Your task to perform on an android device: add a contact Image 0: 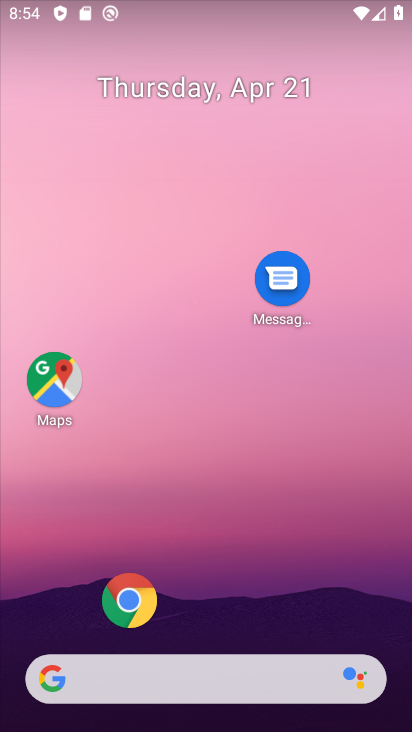
Step 0: drag from (24, 620) to (270, 193)
Your task to perform on an android device: add a contact Image 1: 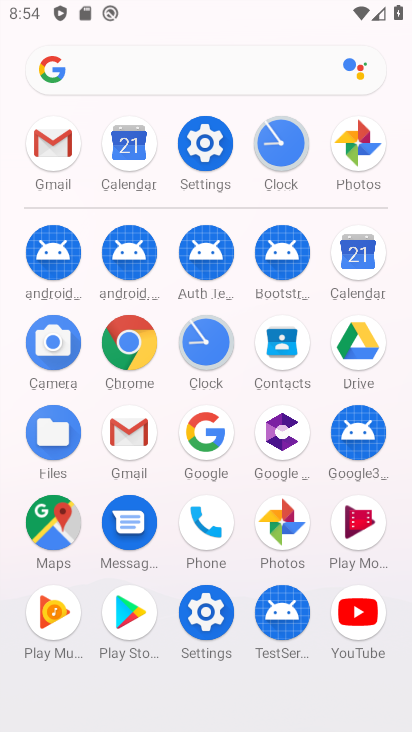
Step 1: click (210, 522)
Your task to perform on an android device: add a contact Image 2: 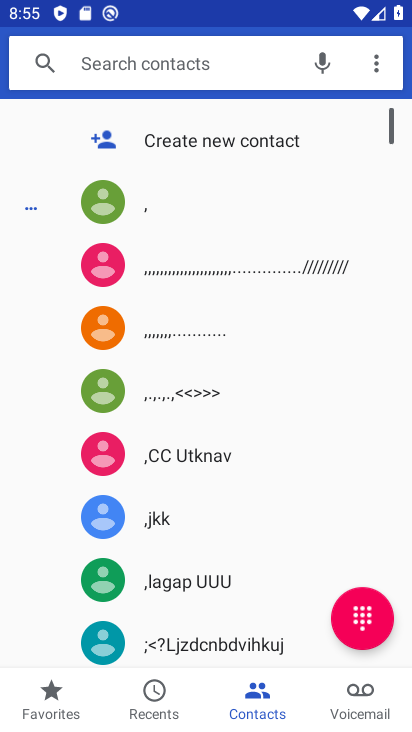
Step 2: click (301, 137)
Your task to perform on an android device: add a contact Image 3: 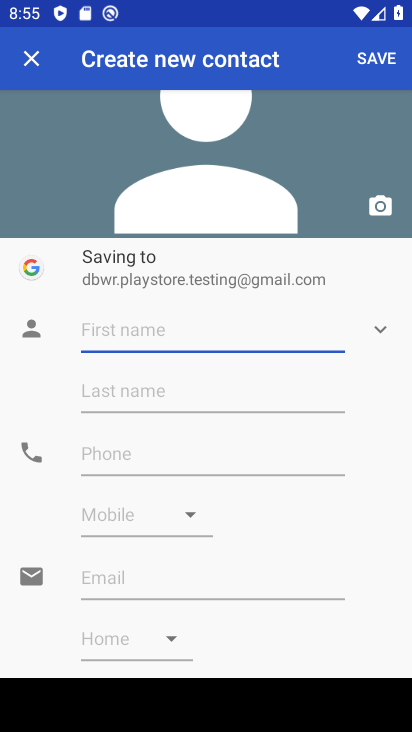
Step 3: click (154, 328)
Your task to perform on an android device: add a contact Image 4: 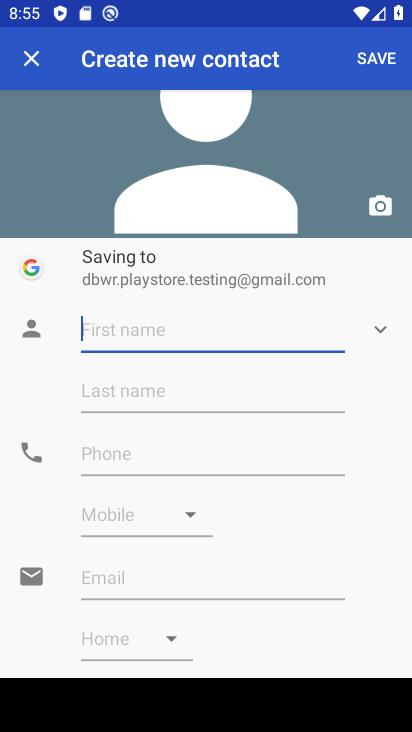
Step 4: type "gfffgh"
Your task to perform on an android device: add a contact Image 5: 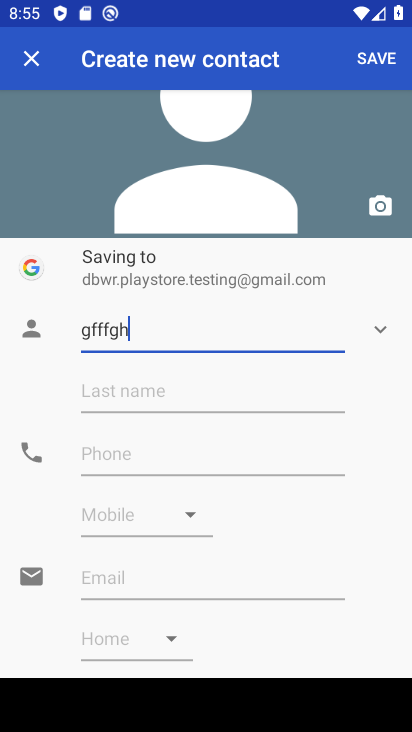
Step 5: type ""
Your task to perform on an android device: add a contact Image 6: 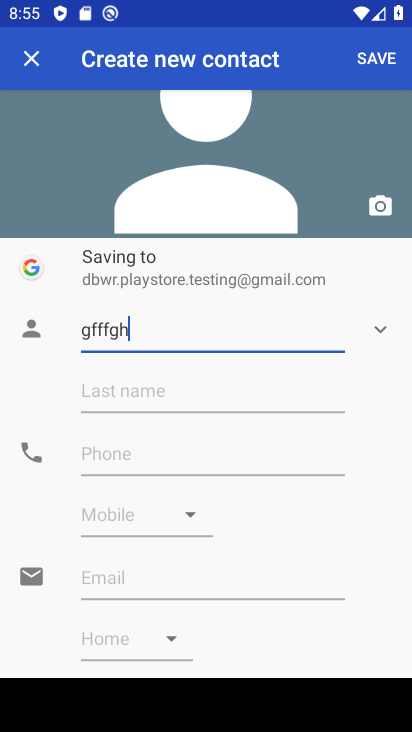
Step 6: click (360, 62)
Your task to perform on an android device: add a contact Image 7: 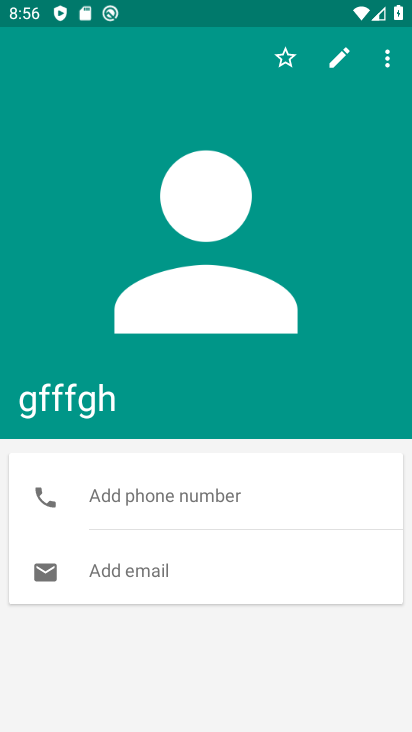
Step 7: task complete